Your task to perform on an android device: Open the phone app and click the voicemail tab. Image 0: 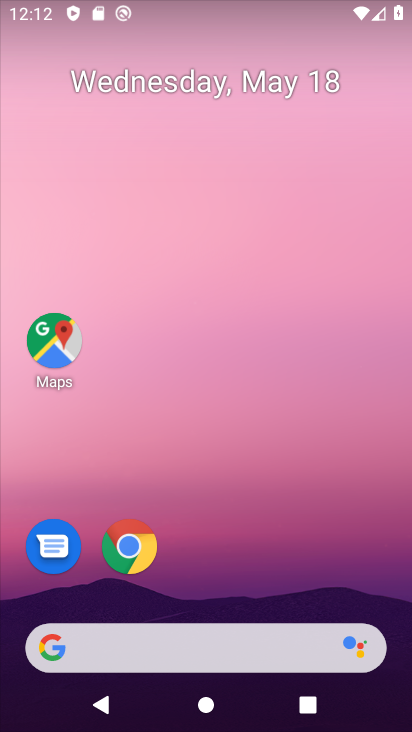
Step 0: drag from (320, 263) to (310, 63)
Your task to perform on an android device: Open the phone app and click the voicemail tab. Image 1: 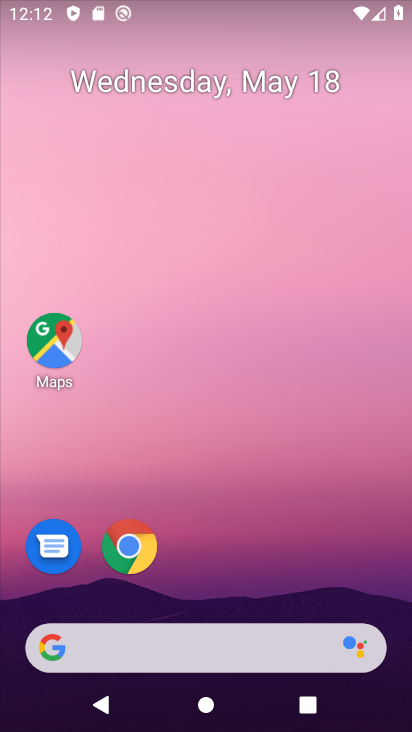
Step 1: drag from (324, 582) to (276, 93)
Your task to perform on an android device: Open the phone app and click the voicemail tab. Image 2: 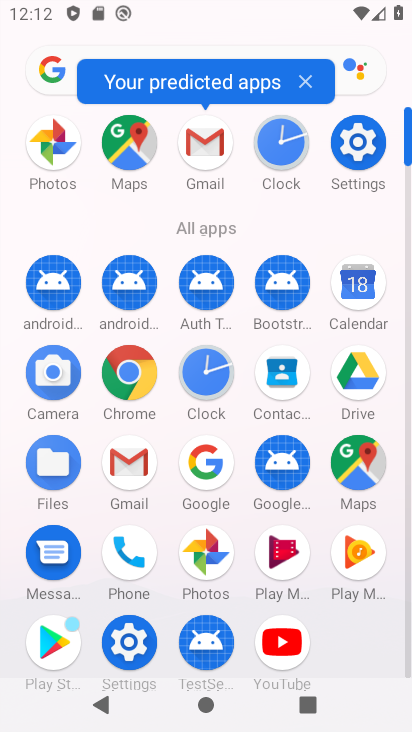
Step 2: click (114, 559)
Your task to perform on an android device: Open the phone app and click the voicemail tab. Image 3: 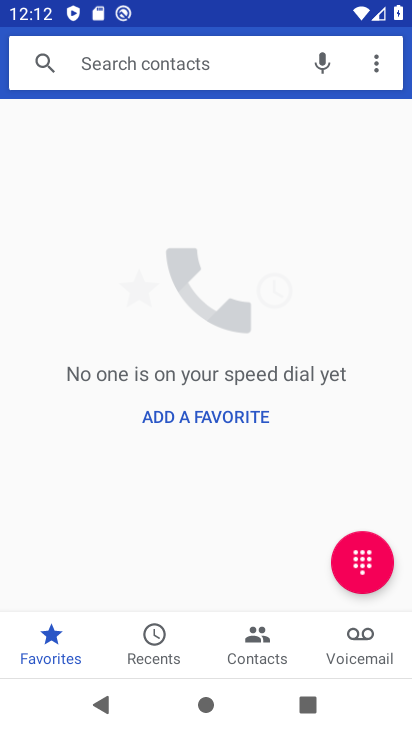
Step 3: click (347, 661)
Your task to perform on an android device: Open the phone app and click the voicemail tab. Image 4: 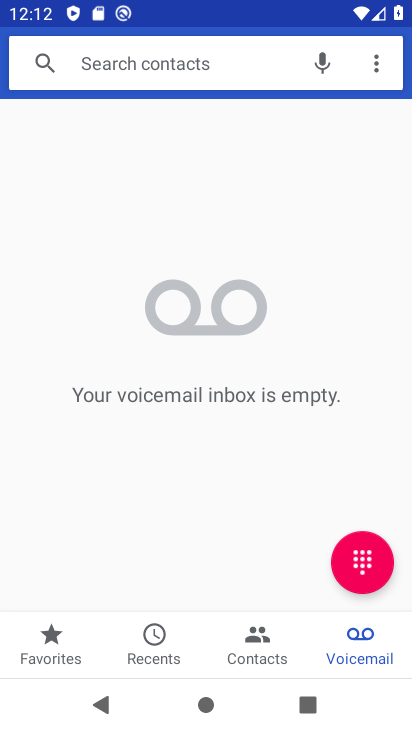
Step 4: click (347, 661)
Your task to perform on an android device: Open the phone app and click the voicemail tab. Image 5: 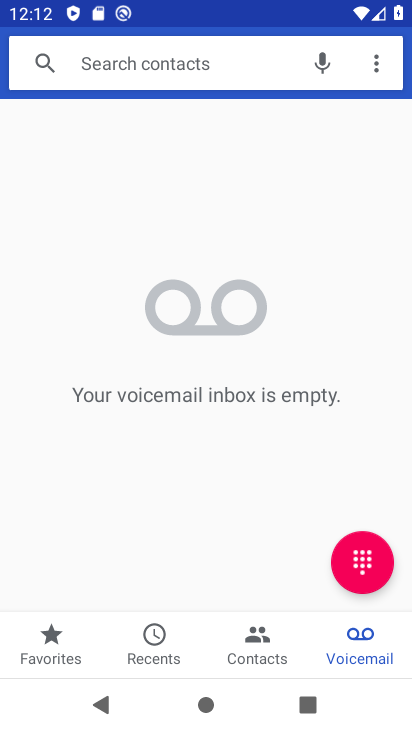
Step 5: task complete